Your task to perform on an android device: turn smart compose on in the gmail app Image 0: 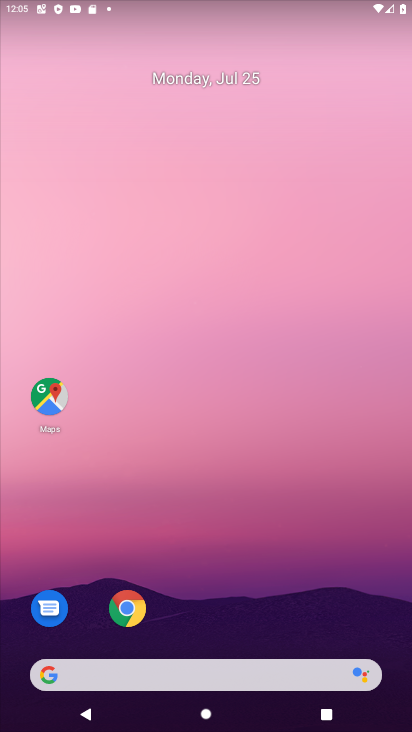
Step 0: drag from (258, 659) to (194, 20)
Your task to perform on an android device: turn smart compose on in the gmail app Image 1: 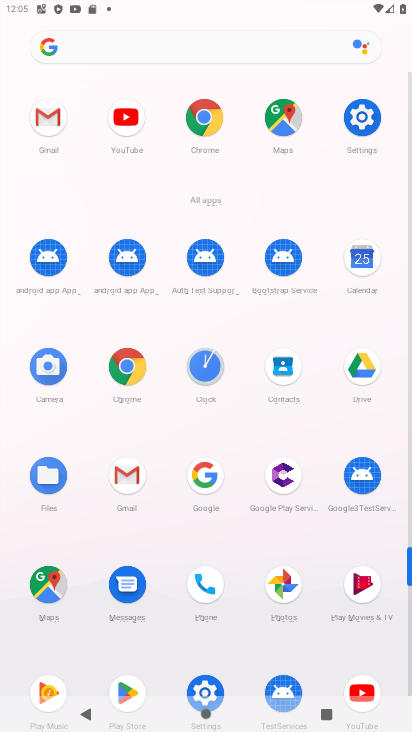
Step 1: click (52, 116)
Your task to perform on an android device: turn smart compose on in the gmail app Image 2: 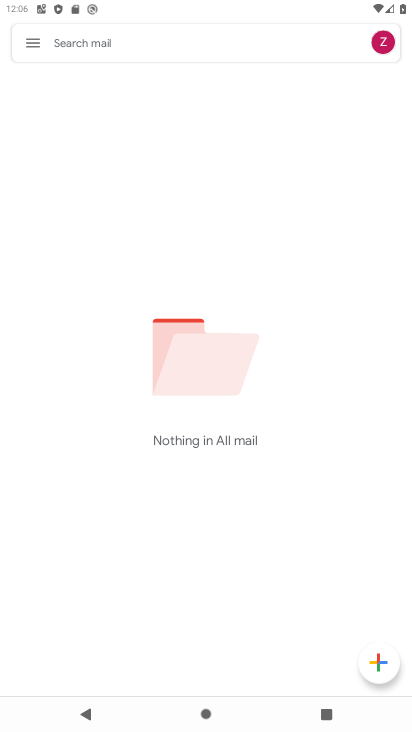
Step 2: click (35, 42)
Your task to perform on an android device: turn smart compose on in the gmail app Image 3: 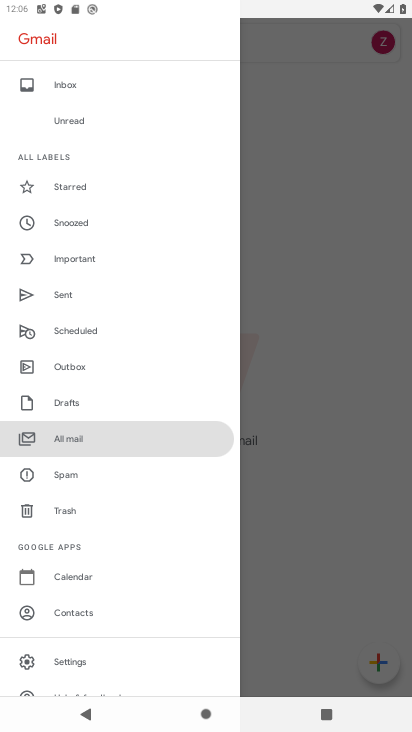
Step 3: click (82, 668)
Your task to perform on an android device: turn smart compose on in the gmail app Image 4: 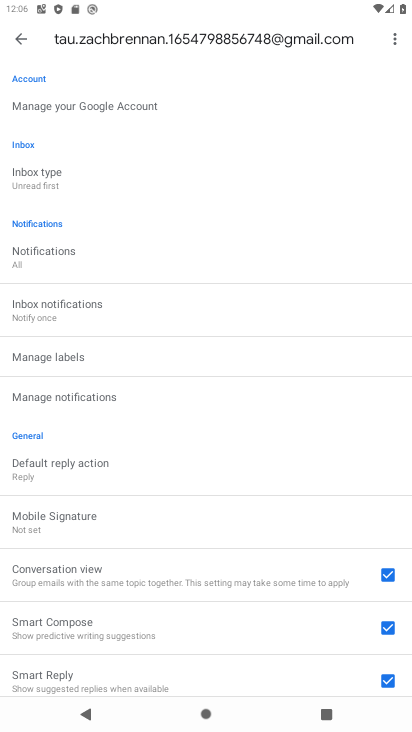
Step 4: task complete